Your task to perform on an android device: turn off priority inbox in the gmail app Image 0: 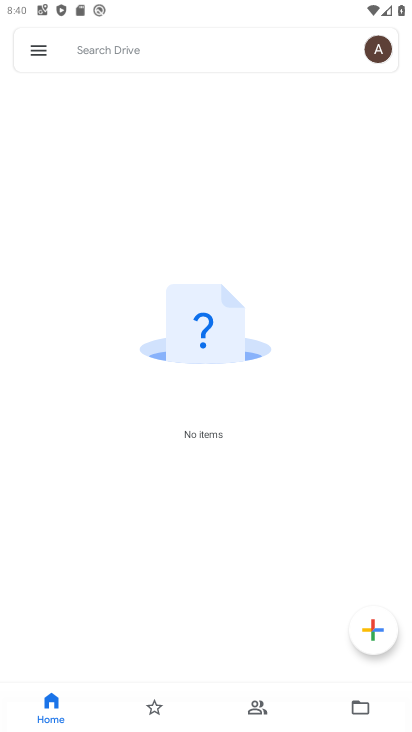
Step 0: drag from (226, 514) to (155, 4)
Your task to perform on an android device: turn off priority inbox in the gmail app Image 1: 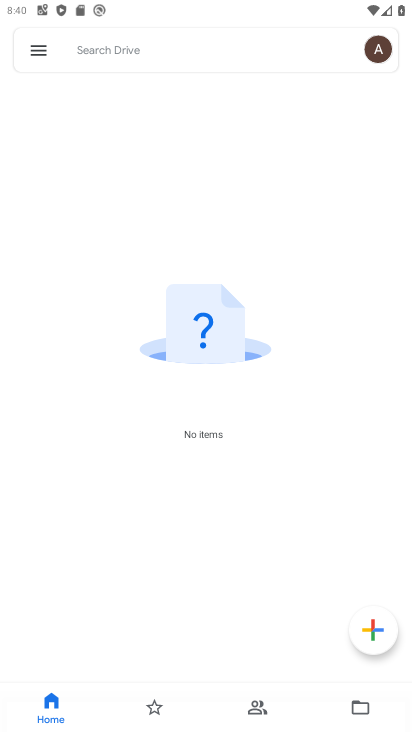
Step 1: drag from (228, 485) to (197, 264)
Your task to perform on an android device: turn off priority inbox in the gmail app Image 2: 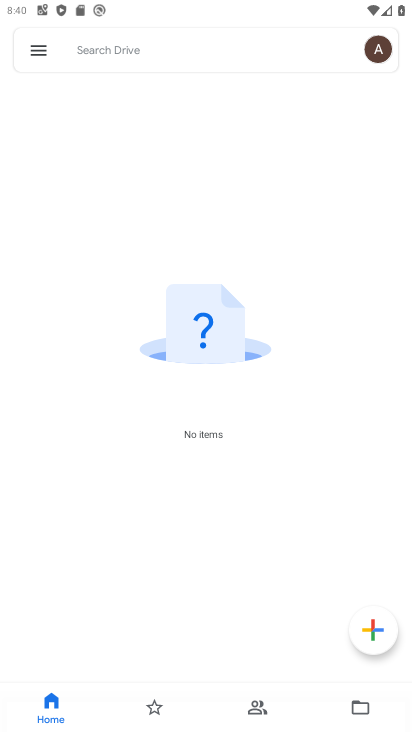
Step 2: click (32, 54)
Your task to perform on an android device: turn off priority inbox in the gmail app Image 3: 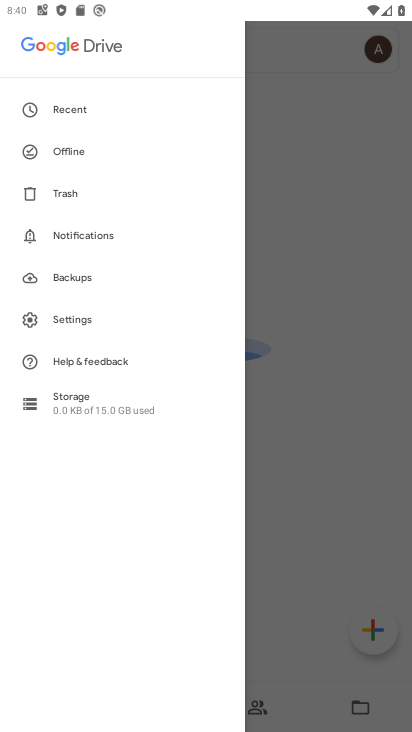
Step 3: click (63, 322)
Your task to perform on an android device: turn off priority inbox in the gmail app Image 4: 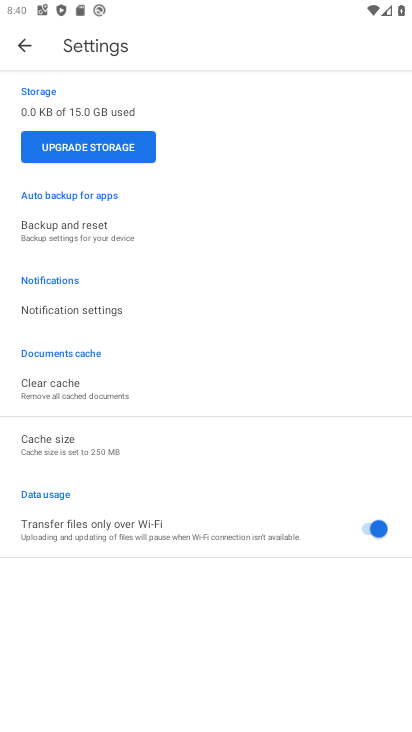
Step 4: drag from (135, 219) to (248, 541)
Your task to perform on an android device: turn off priority inbox in the gmail app Image 5: 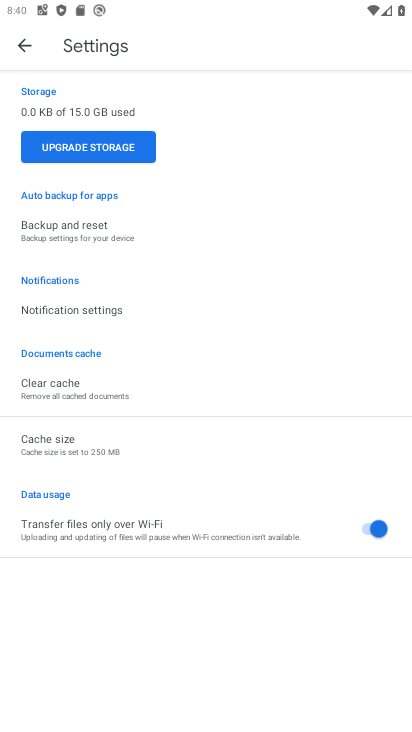
Step 5: click (26, 34)
Your task to perform on an android device: turn off priority inbox in the gmail app Image 6: 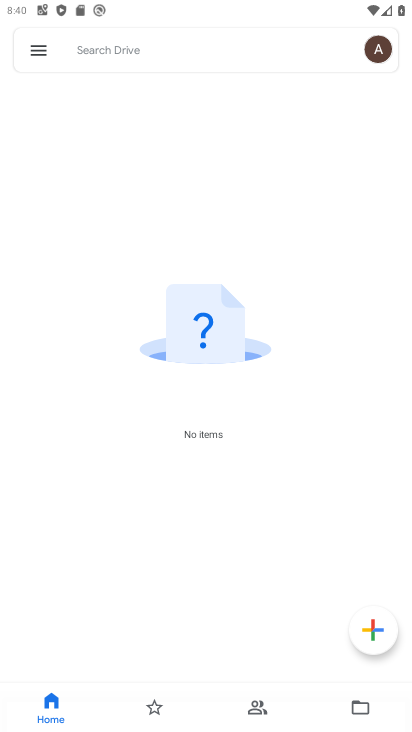
Step 6: drag from (186, 540) to (185, 331)
Your task to perform on an android device: turn off priority inbox in the gmail app Image 7: 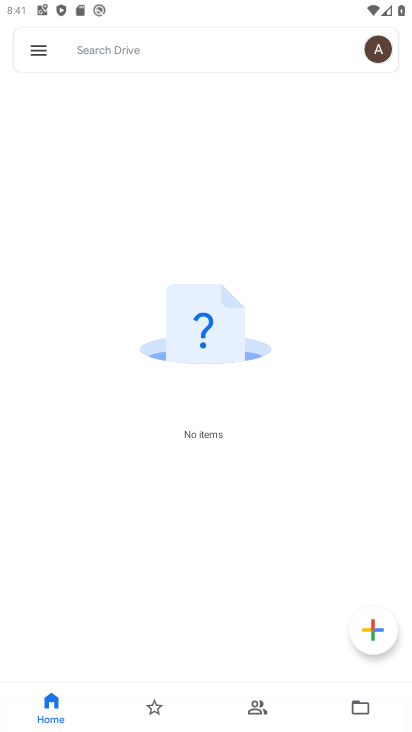
Step 7: click (171, 330)
Your task to perform on an android device: turn off priority inbox in the gmail app Image 8: 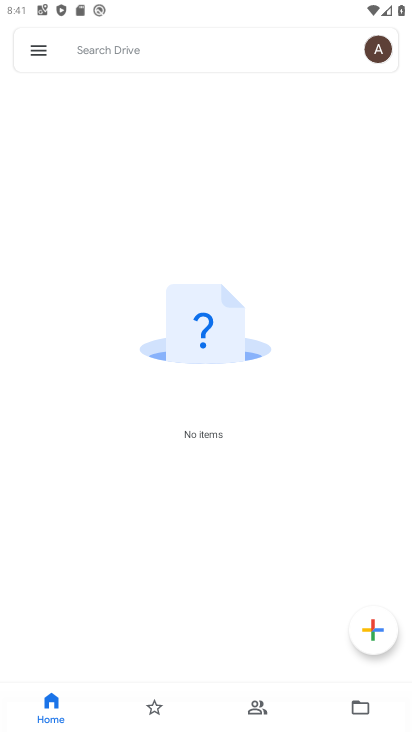
Step 8: drag from (197, 559) to (178, 341)
Your task to perform on an android device: turn off priority inbox in the gmail app Image 9: 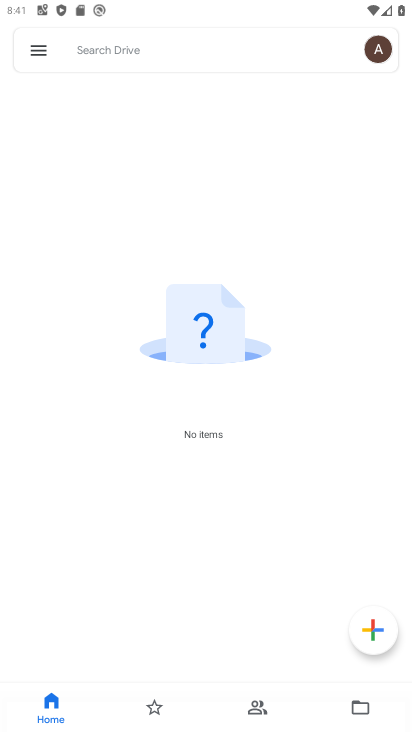
Step 9: drag from (186, 540) to (194, 349)
Your task to perform on an android device: turn off priority inbox in the gmail app Image 10: 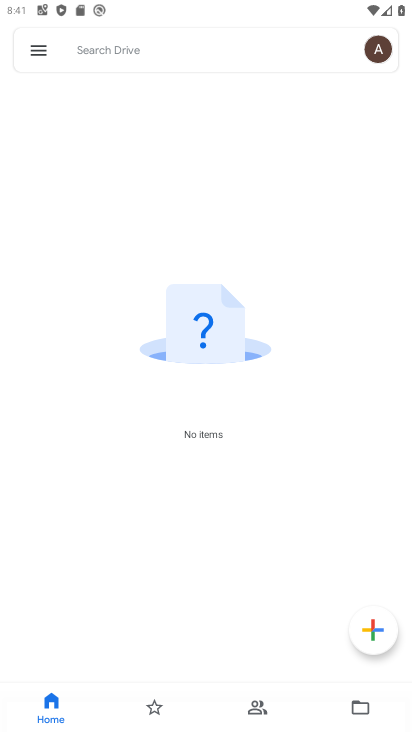
Step 10: click (38, 42)
Your task to perform on an android device: turn off priority inbox in the gmail app Image 11: 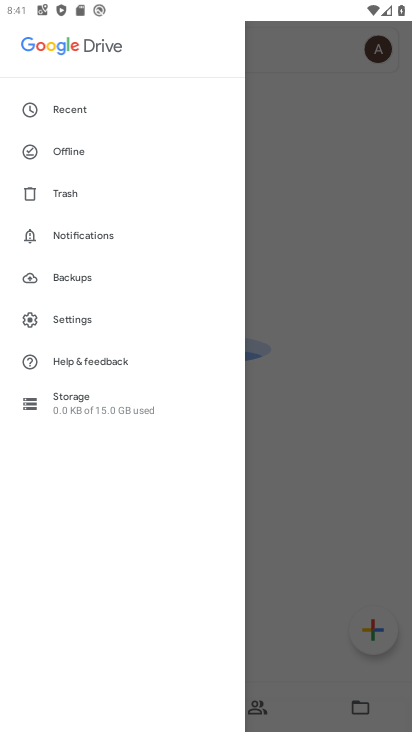
Step 11: press home button
Your task to perform on an android device: turn off priority inbox in the gmail app Image 12: 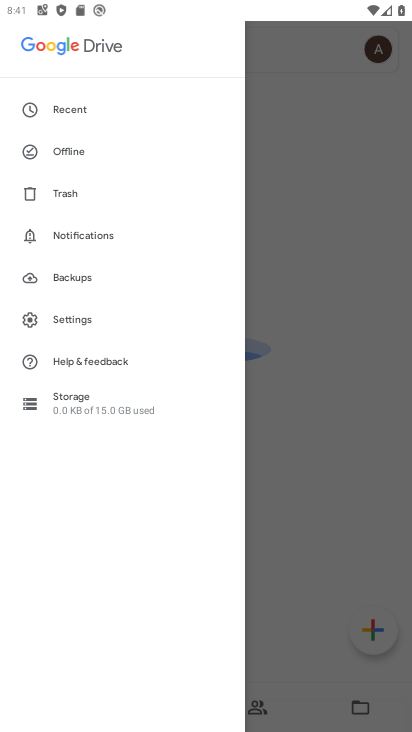
Step 12: press home button
Your task to perform on an android device: turn off priority inbox in the gmail app Image 13: 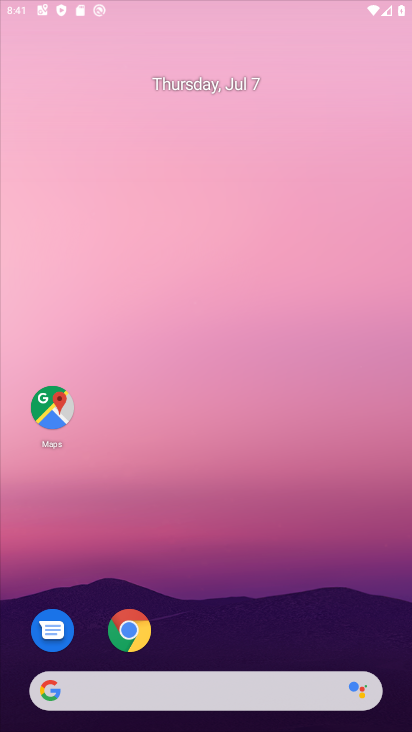
Step 13: drag from (183, 508) to (181, 303)
Your task to perform on an android device: turn off priority inbox in the gmail app Image 14: 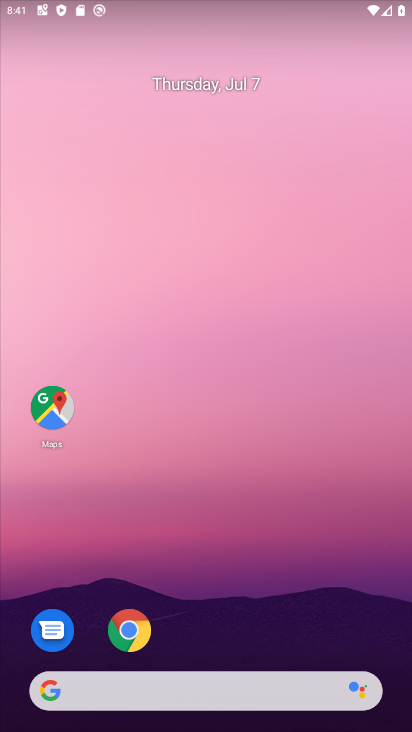
Step 14: drag from (218, 600) to (245, 179)
Your task to perform on an android device: turn off priority inbox in the gmail app Image 15: 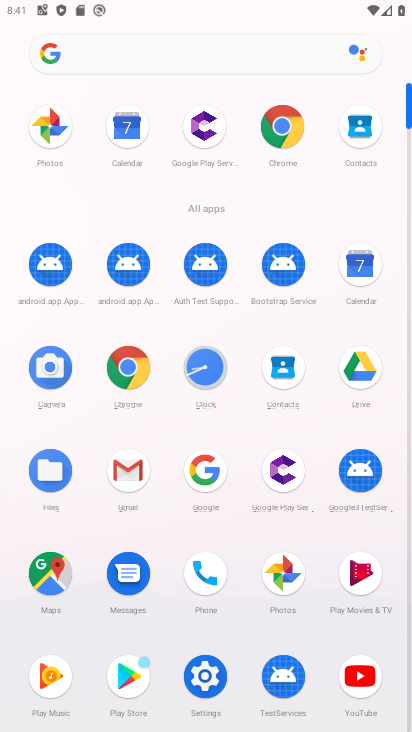
Step 15: click (93, 455)
Your task to perform on an android device: turn off priority inbox in the gmail app Image 16: 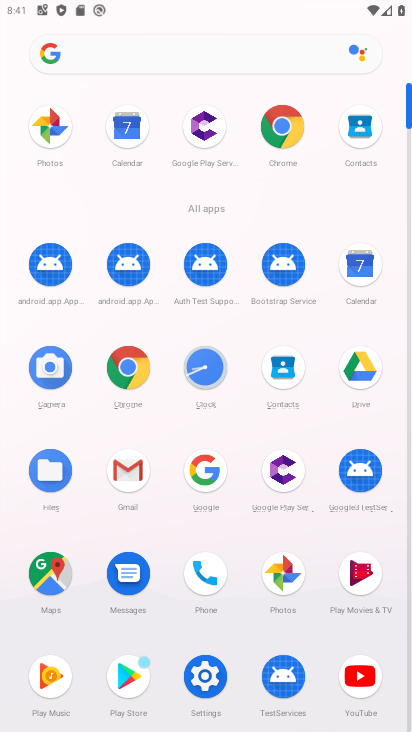
Step 16: click (134, 462)
Your task to perform on an android device: turn off priority inbox in the gmail app Image 17: 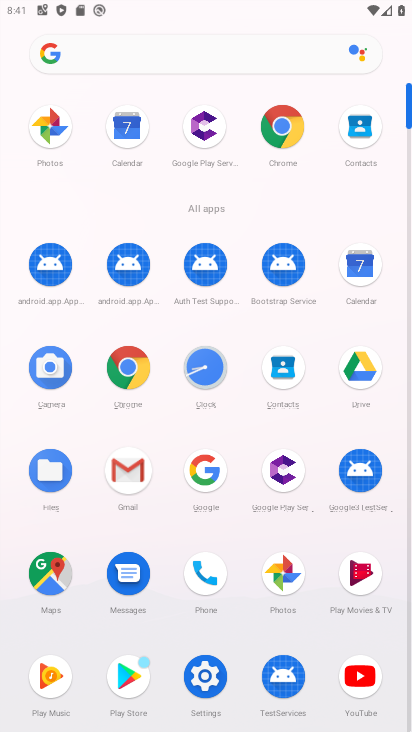
Step 17: click (134, 462)
Your task to perform on an android device: turn off priority inbox in the gmail app Image 18: 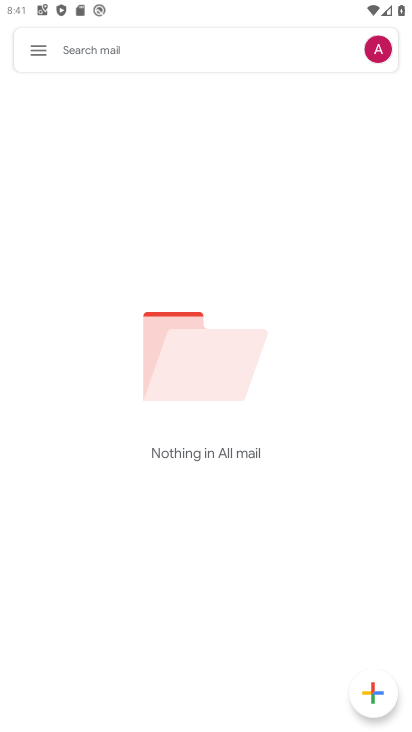
Step 18: drag from (192, 546) to (152, 397)
Your task to perform on an android device: turn off priority inbox in the gmail app Image 19: 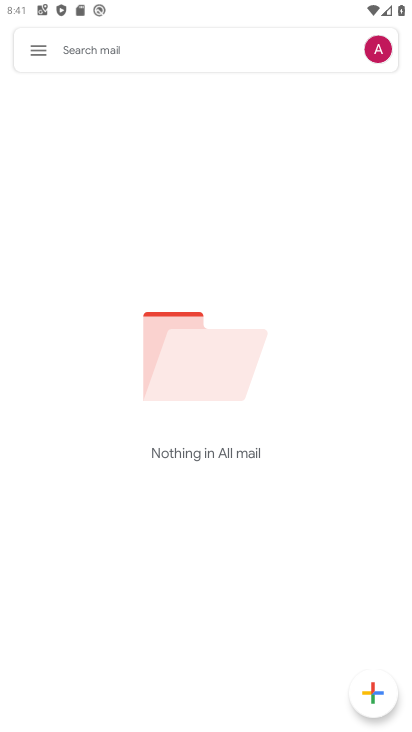
Step 19: click (47, 49)
Your task to perform on an android device: turn off priority inbox in the gmail app Image 20: 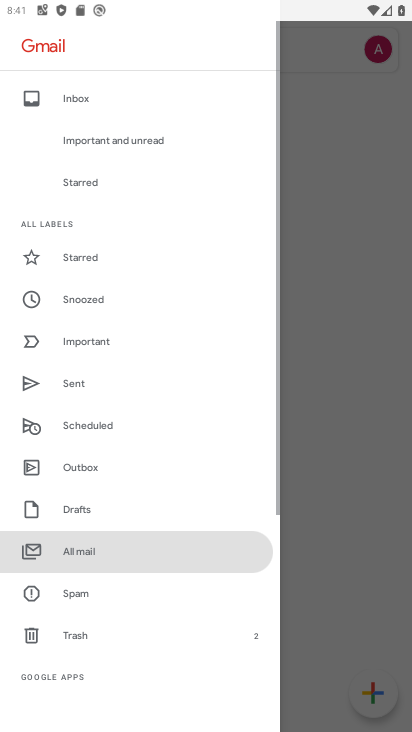
Step 20: drag from (117, 635) to (119, 218)
Your task to perform on an android device: turn off priority inbox in the gmail app Image 21: 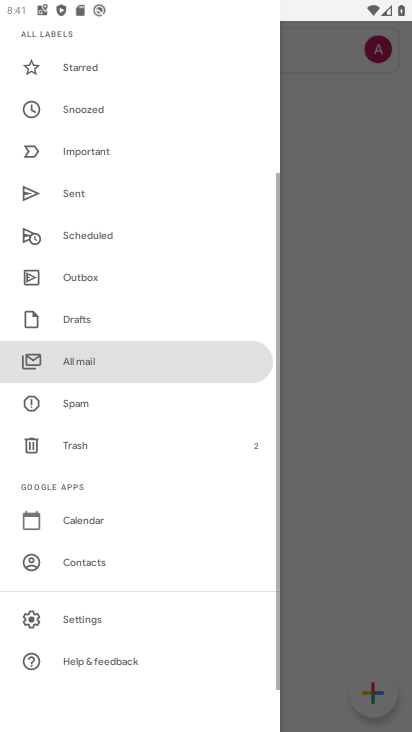
Step 21: click (95, 619)
Your task to perform on an android device: turn off priority inbox in the gmail app Image 22: 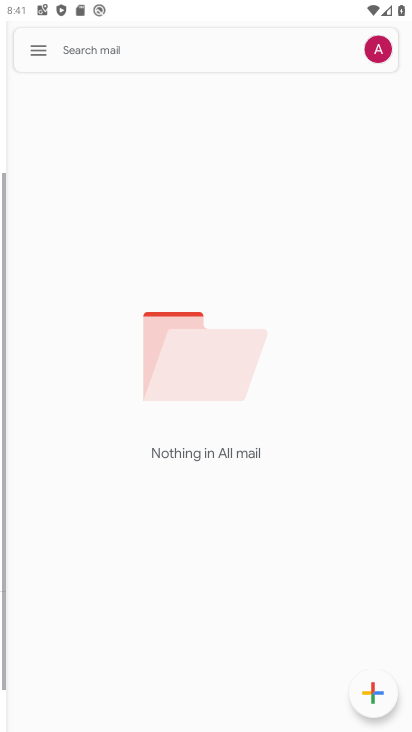
Step 22: drag from (138, 496) to (113, 146)
Your task to perform on an android device: turn off priority inbox in the gmail app Image 23: 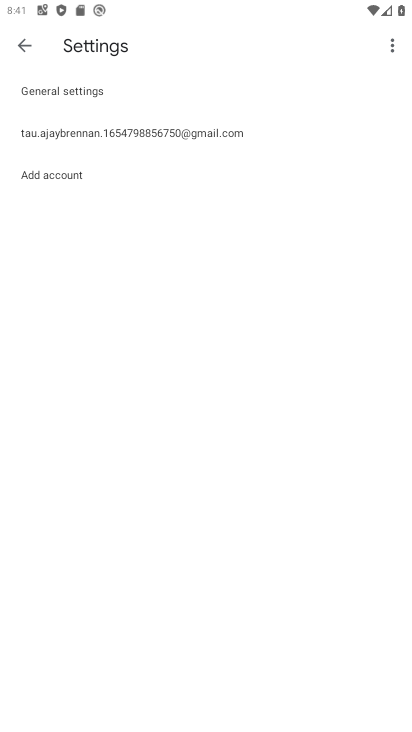
Step 23: click (115, 139)
Your task to perform on an android device: turn off priority inbox in the gmail app Image 24: 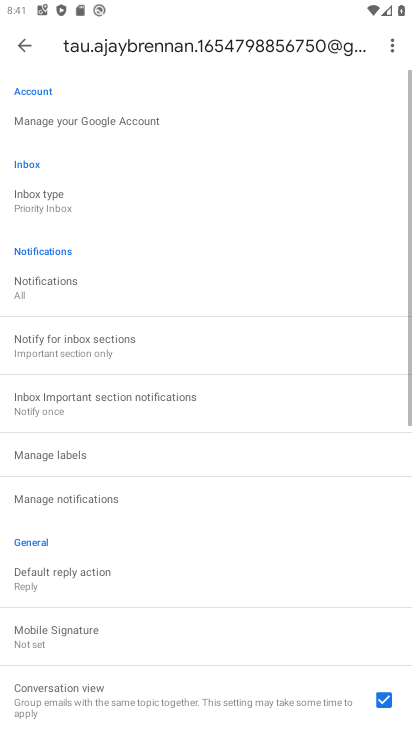
Step 24: drag from (122, 522) to (141, 210)
Your task to perform on an android device: turn off priority inbox in the gmail app Image 25: 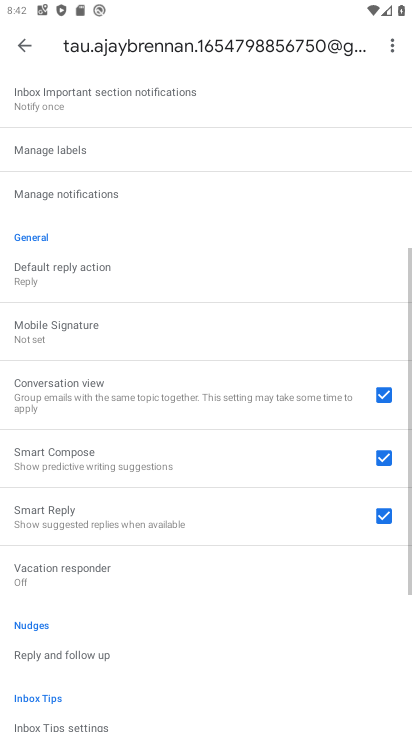
Step 25: drag from (157, 173) to (164, 712)
Your task to perform on an android device: turn off priority inbox in the gmail app Image 26: 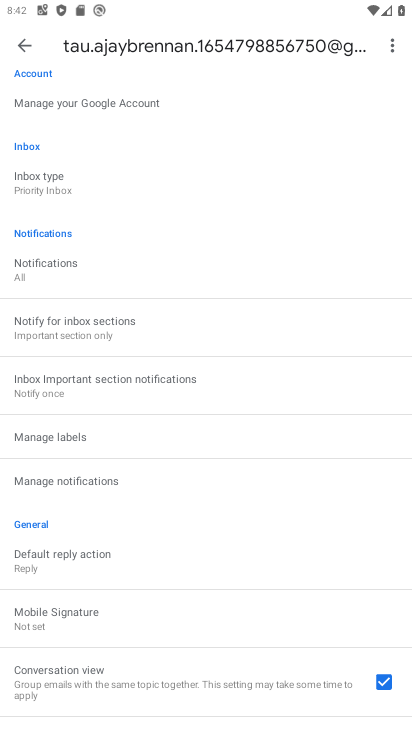
Step 26: click (79, 210)
Your task to perform on an android device: turn off priority inbox in the gmail app Image 27: 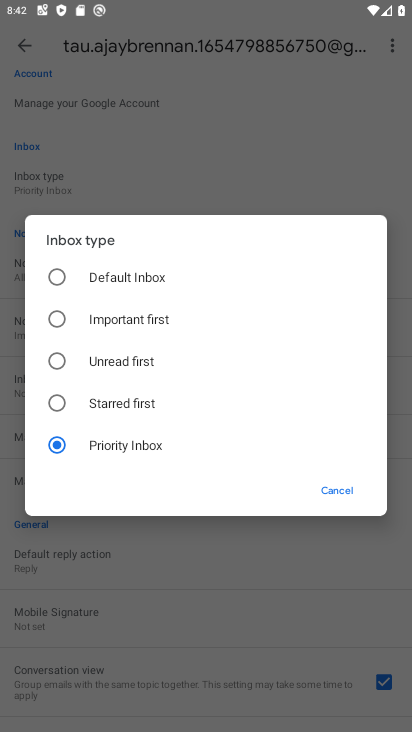
Step 27: click (127, 264)
Your task to perform on an android device: turn off priority inbox in the gmail app Image 28: 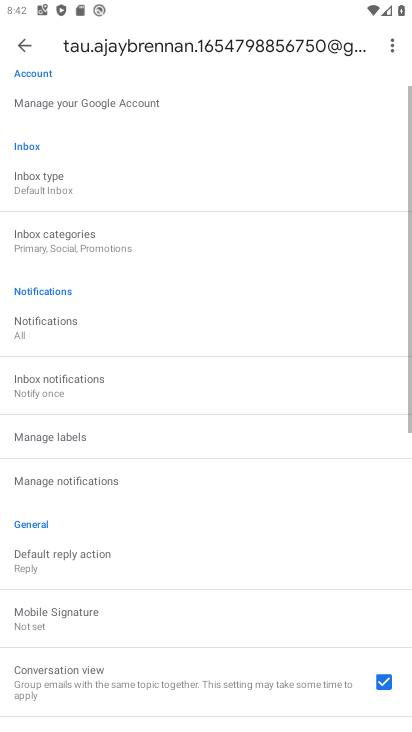
Step 28: task complete